Your task to perform on an android device: visit the assistant section in the google photos Image 0: 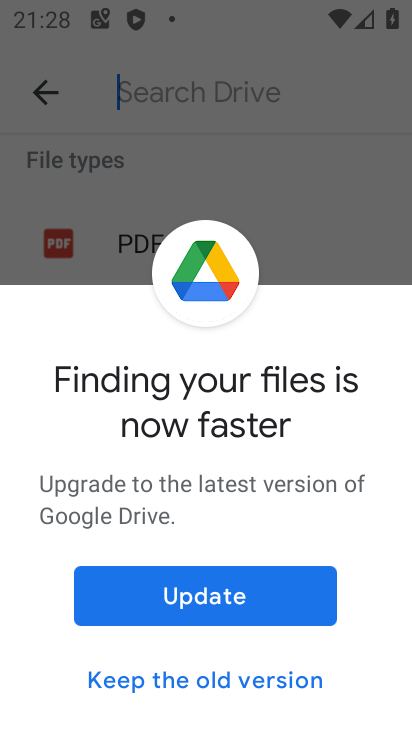
Step 0: press home button
Your task to perform on an android device: visit the assistant section in the google photos Image 1: 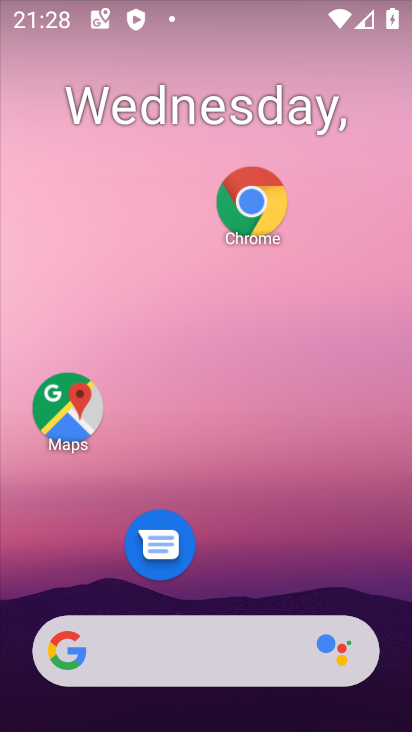
Step 1: drag from (261, 573) to (295, 178)
Your task to perform on an android device: visit the assistant section in the google photos Image 2: 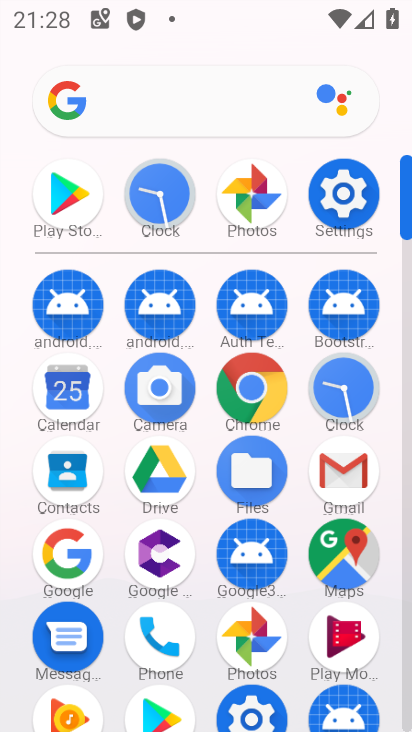
Step 2: click (254, 182)
Your task to perform on an android device: visit the assistant section in the google photos Image 3: 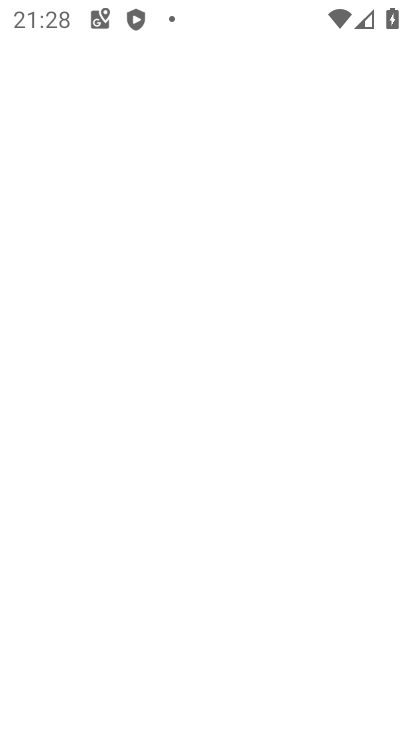
Step 3: click (254, 182)
Your task to perform on an android device: visit the assistant section in the google photos Image 4: 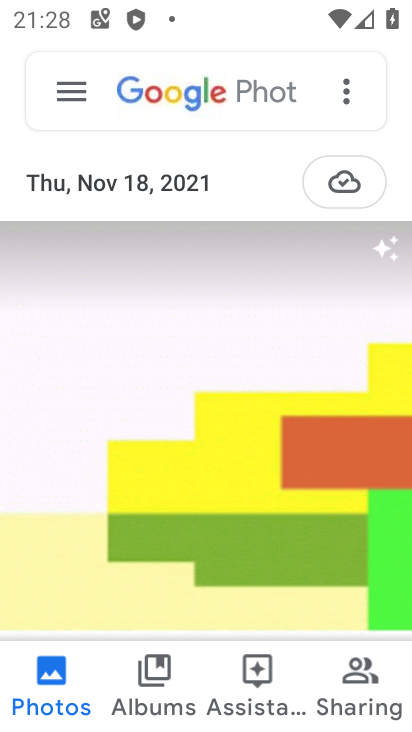
Step 4: click (252, 686)
Your task to perform on an android device: visit the assistant section in the google photos Image 5: 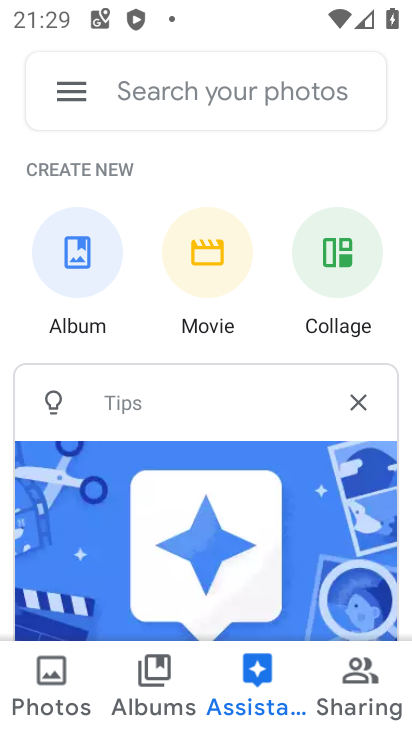
Step 5: task complete